Your task to perform on an android device: open chrome privacy settings Image 0: 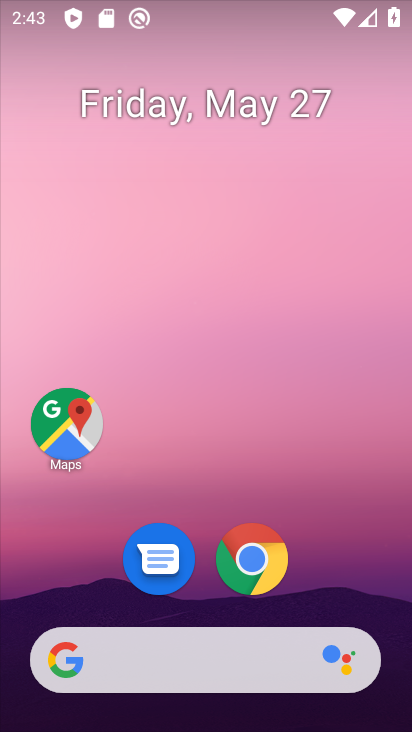
Step 0: click (260, 542)
Your task to perform on an android device: open chrome privacy settings Image 1: 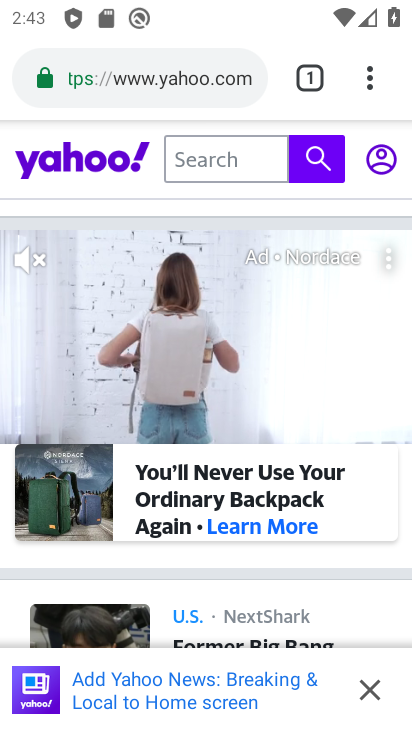
Step 1: click (367, 79)
Your task to perform on an android device: open chrome privacy settings Image 2: 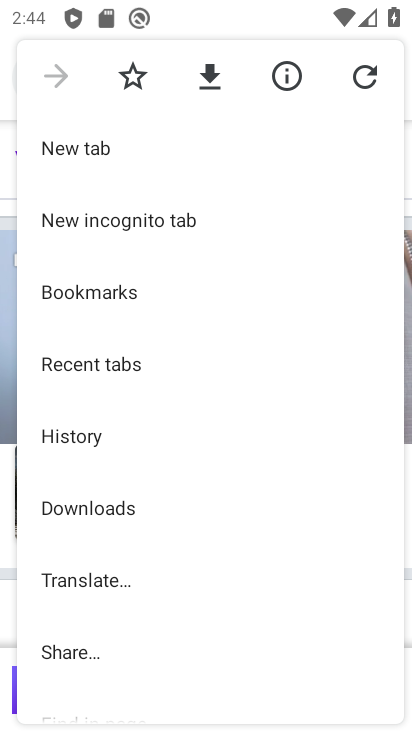
Step 2: click (136, 103)
Your task to perform on an android device: open chrome privacy settings Image 3: 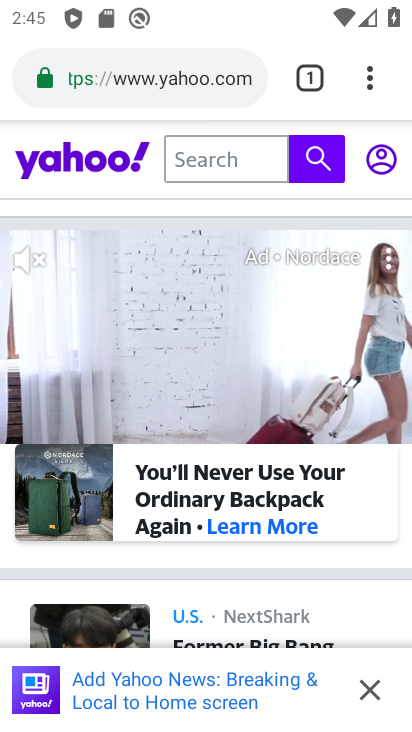
Step 3: click (371, 69)
Your task to perform on an android device: open chrome privacy settings Image 4: 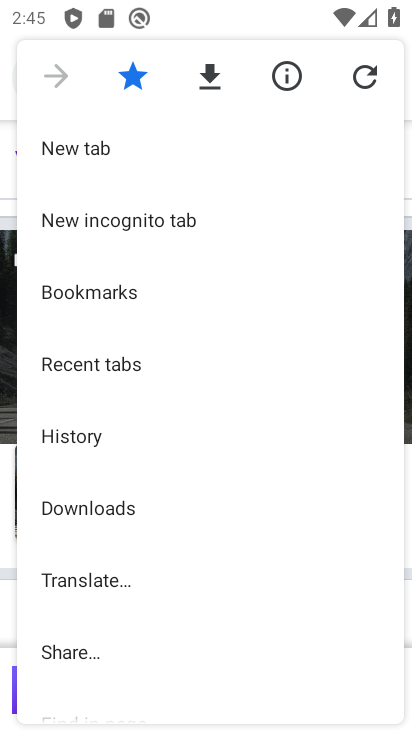
Step 4: drag from (153, 612) to (94, 144)
Your task to perform on an android device: open chrome privacy settings Image 5: 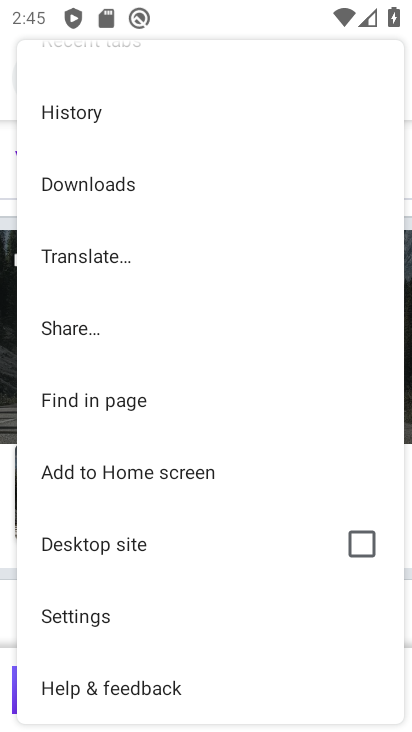
Step 5: click (89, 615)
Your task to perform on an android device: open chrome privacy settings Image 6: 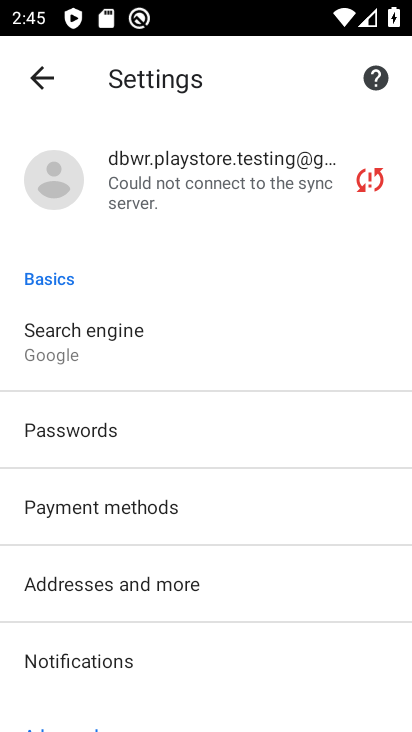
Step 6: drag from (182, 654) to (119, 147)
Your task to perform on an android device: open chrome privacy settings Image 7: 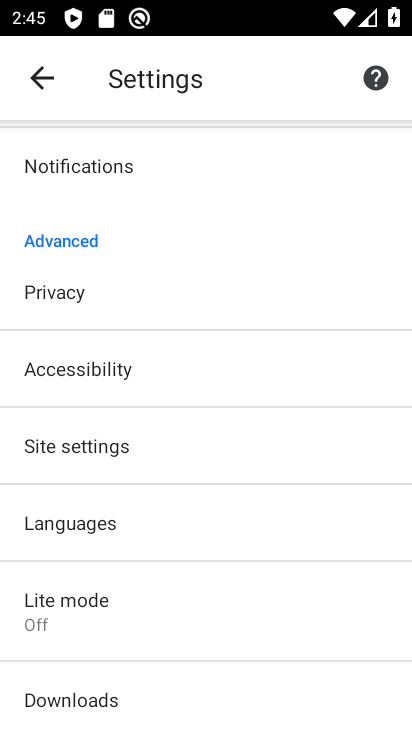
Step 7: drag from (146, 653) to (95, 174)
Your task to perform on an android device: open chrome privacy settings Image 8: 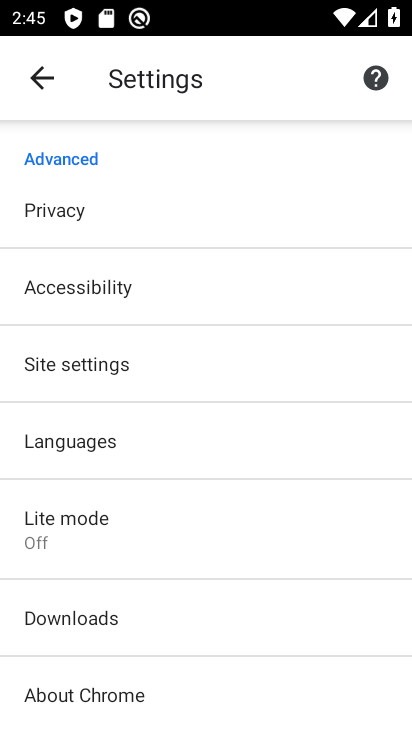
Step 8: drag from (112, 310) to (165, 593)
Your task to perform on an android device: open chrome privacy settings Image 9: 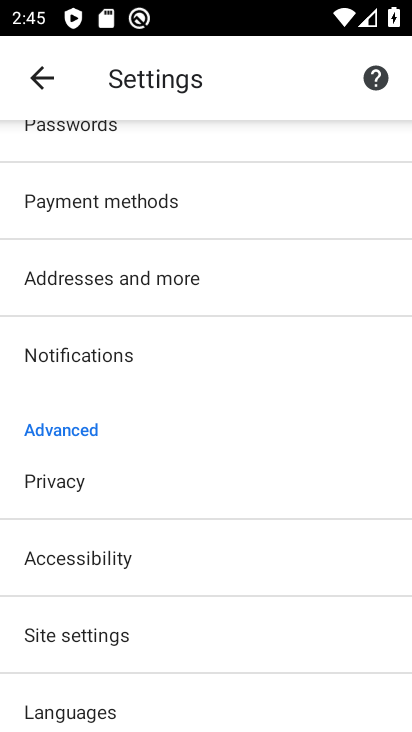
Step 9: click (120, 641)
Your task to perform on an android device: open chrome privacy settings Image 10: 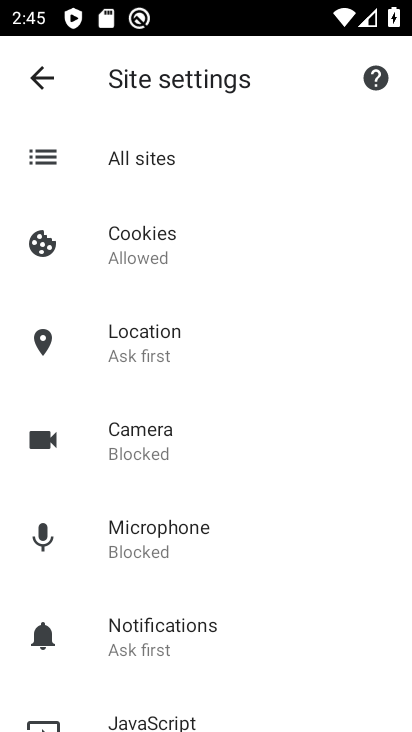
Step 10: click (40, 76)
Your task to perform on an android device: open chrome privacy settings Image 11: 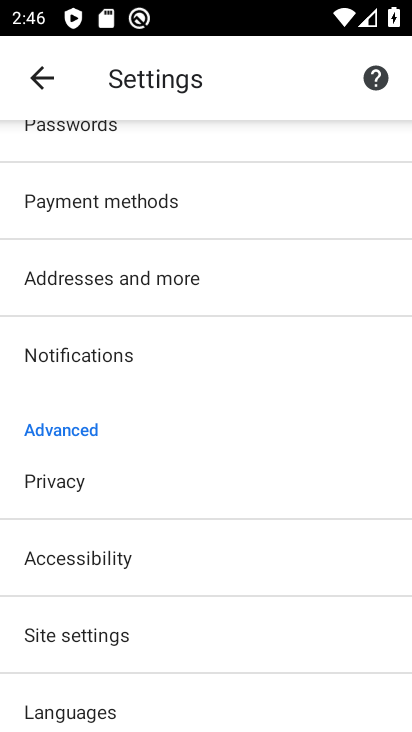
Step 11: drag from (116, 236) to (157, 651)
Your task to perform on an android device: open chrome privacy settings Image 12: 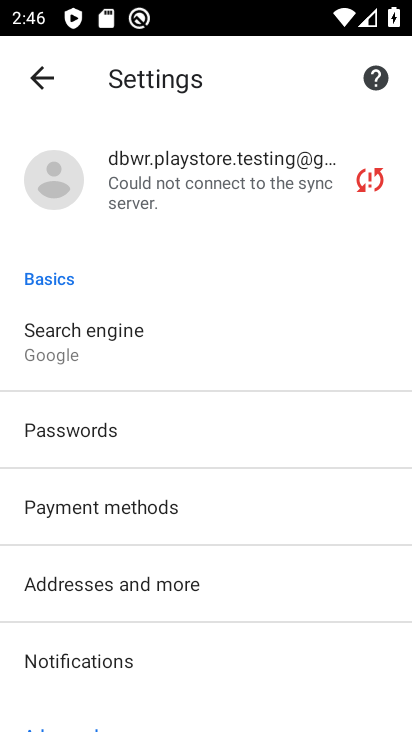
Step 12: drag from (165, 668) to (160, 194)
Your task to perform on an android device: open chrome privacy settings Image 13: 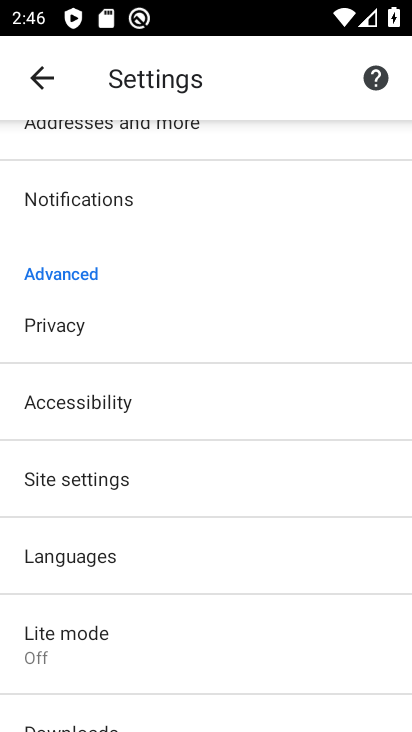
Step 13: drag from (137, 688) to (122, 606)
Your task to perform on an android device: open chrome privacy settings Image 14: 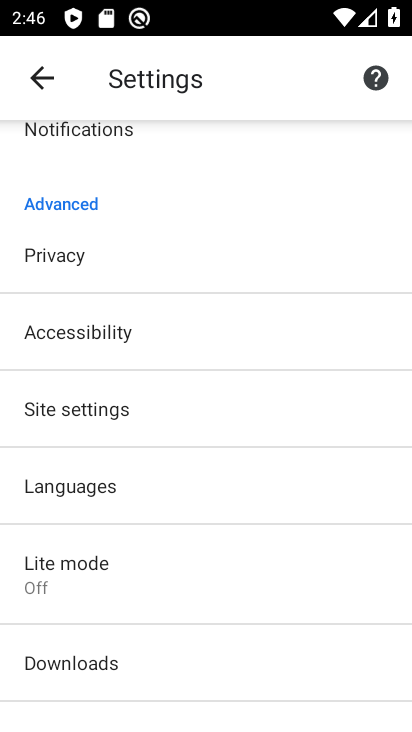
Step 14: click (72, 243)
Your task to perform on an android device: open chrome privacy settings Image 15: 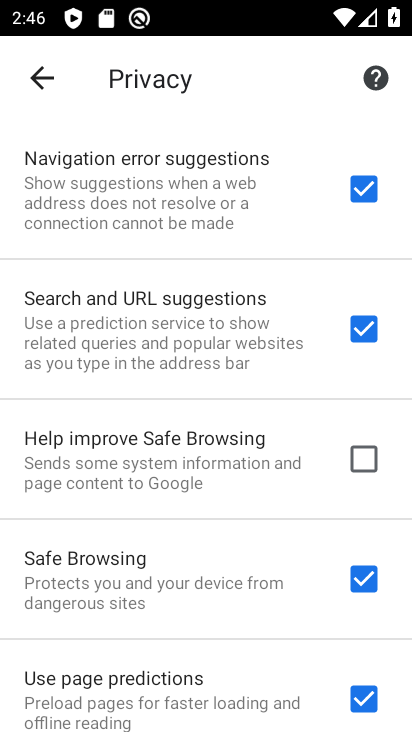
Step 15: task complete